Your task to perform on an android device: Search for Mexican restaurants on Maps Image 0: 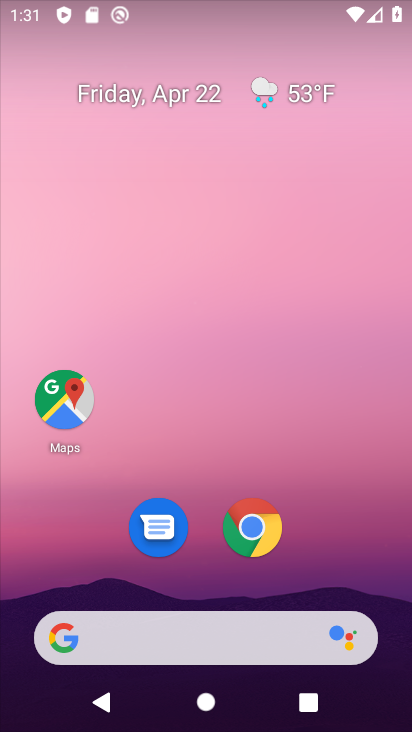
Step 0: click (58, 404)
Your task to perform on an android device: Search for Mexican restaurants on Maps Image 1: 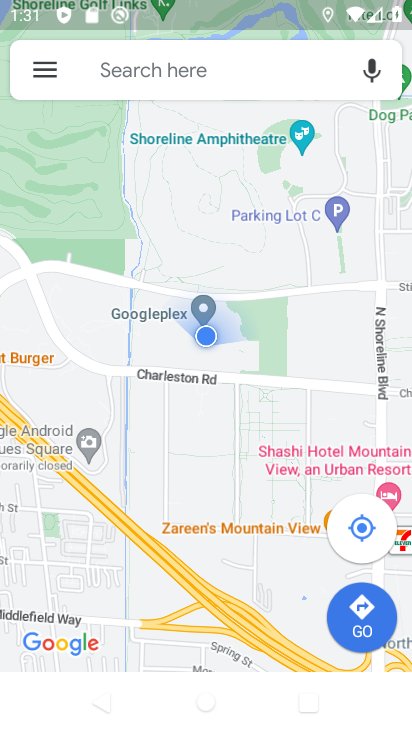
Step 1: click (143, 62)
Your task to perform on an android device: Search for Mexican restaurants on Maps Image 2: 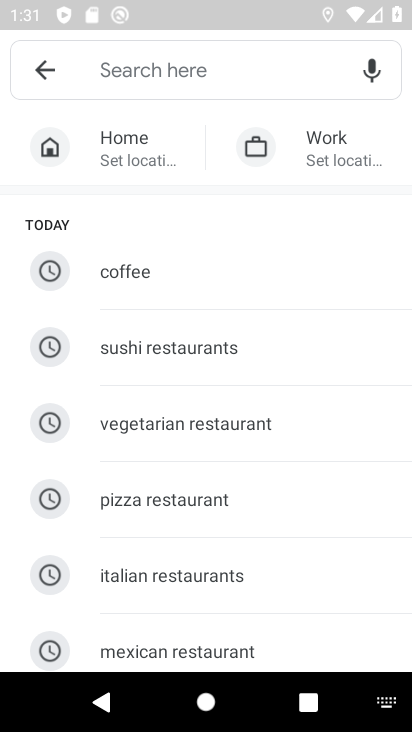
Step 2: click (201, 636)
Your task to perform on an android device: Search for Mexican restaurants on Maps Image 3: 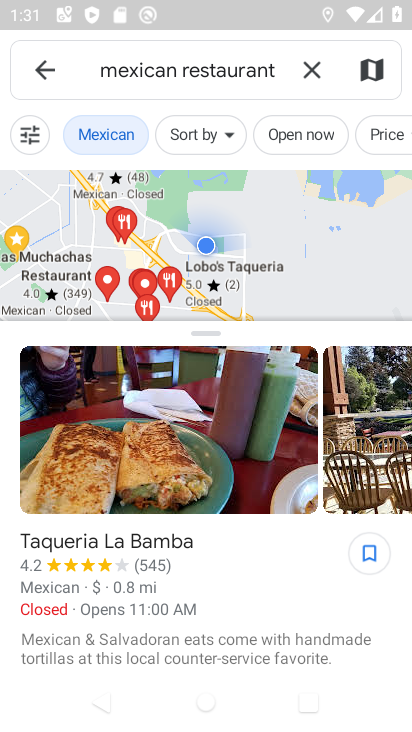
Step 3: task complete